Your task to perform on an android device: check data usage Image 0: 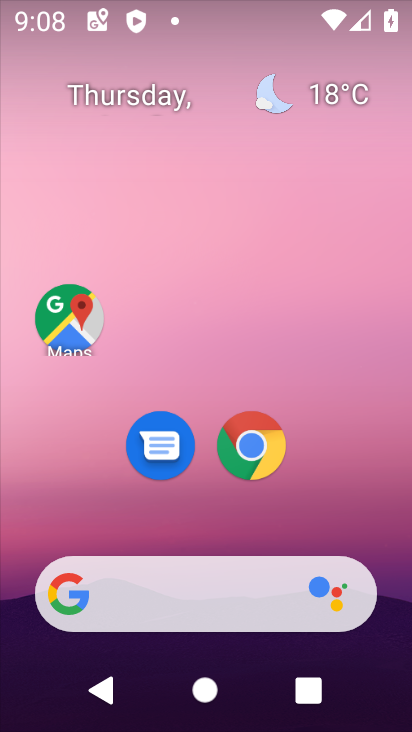
Step 0: drag from (410, 591) to (324, 219)
Your task to perform on an android device: check data usage Image 1: 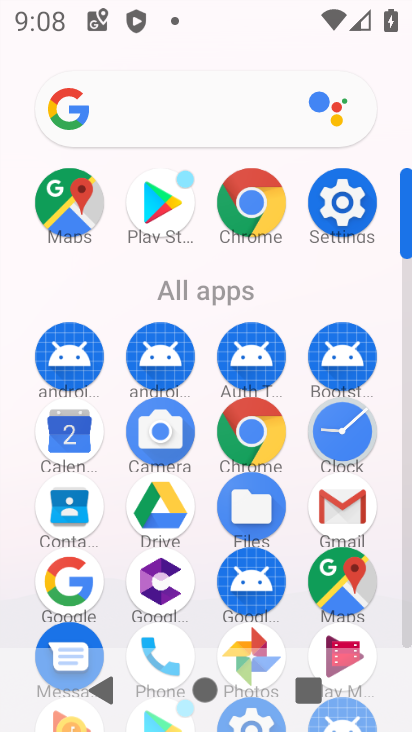
Step 1: click (339, 196)
Your task to perform on an android device: check data usage Image 2: 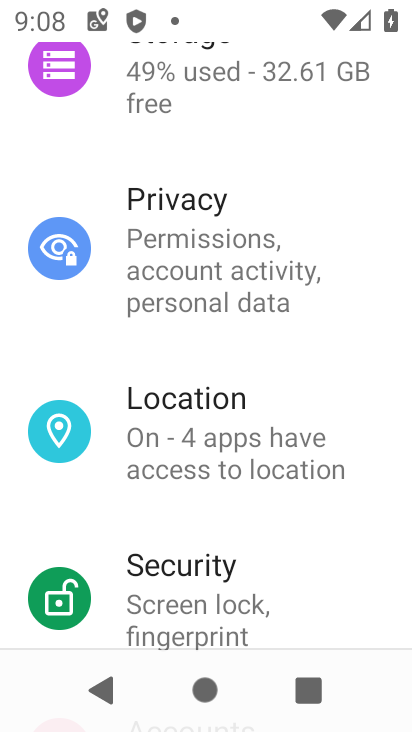
Step 2: drag from (269, 134) to (219, 576)
Your task to perform on an android device: check data usage Image 3: 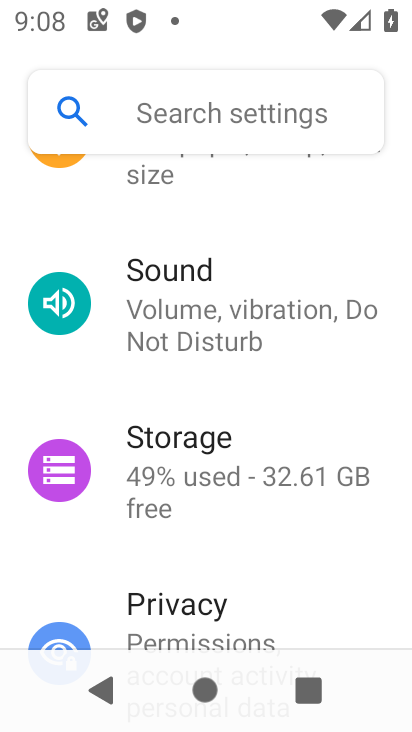
Step 3: drag from (203, 221) to (151, 664)
Your task to perform on an android device: check data usage Image 4: 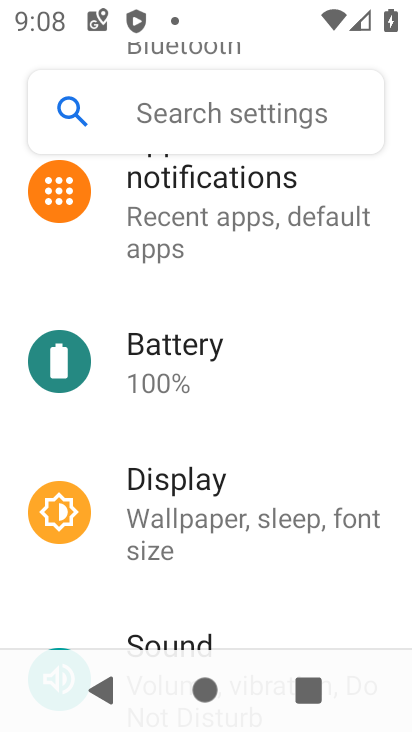
Step 4: drag from (188, 270) to (164, 594)
Your task to perform on an android device: check data usage Image 5: 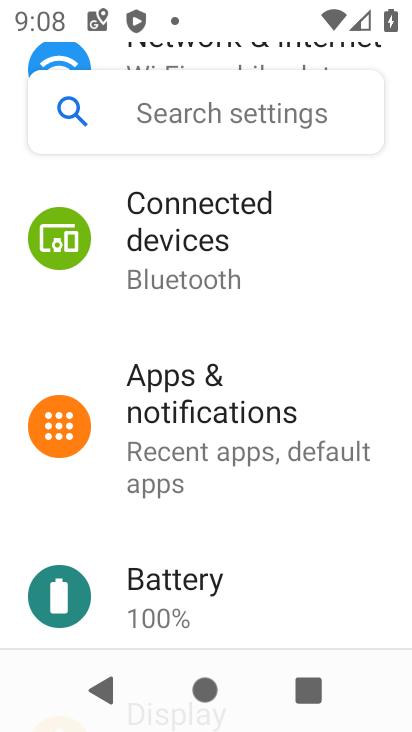
Step 5: drag from (164, 305) to (156, 587)
Your task to perform on an android device: check data usage Image 6: 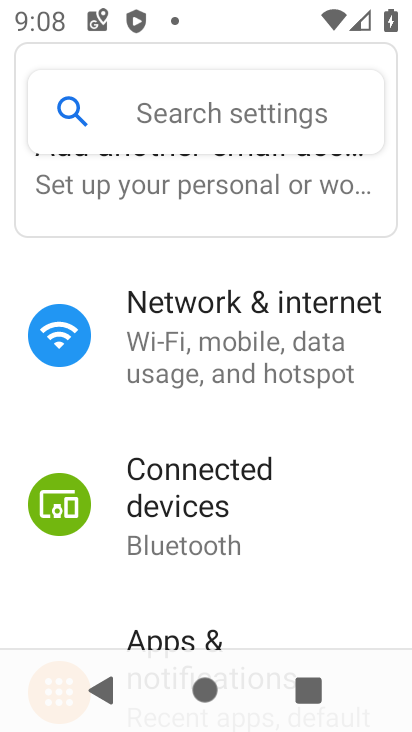
Step 6: click (185, 330)
Your task to perform on an android device: check data usage Image 7: 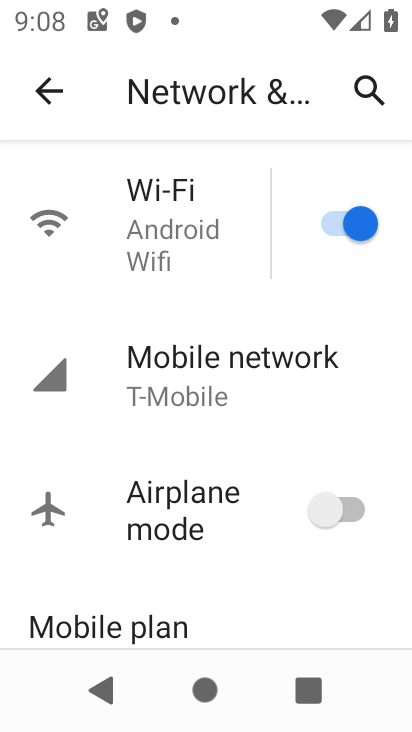
Step 7: click (198, 241)
Your task to perform on an android device: check data usage Image 8: 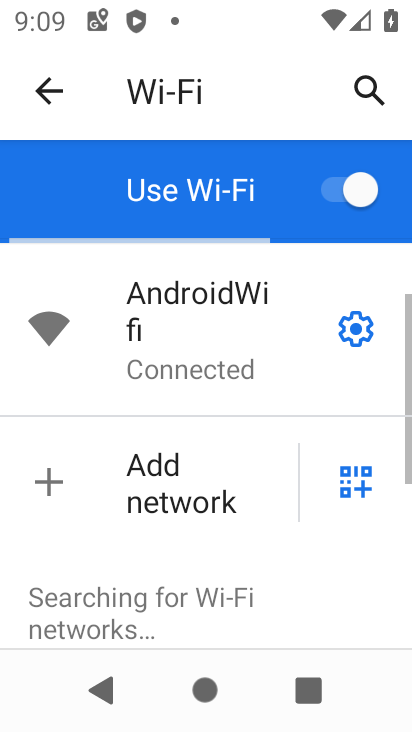
Step 8: drag from (257, 611) to (194, 117)
Your task to perform on an android device: check data usage Image 9: 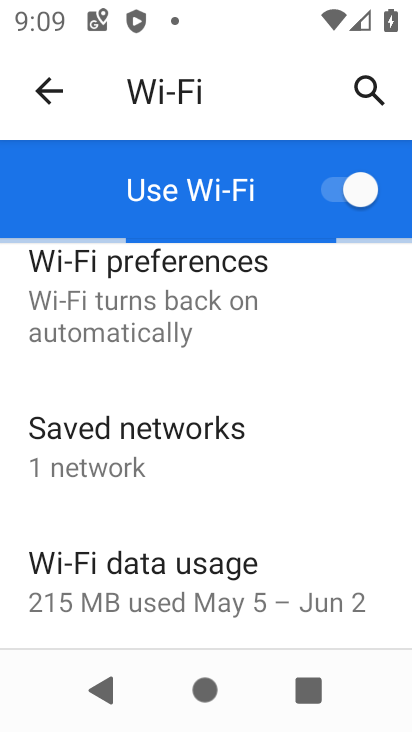
Step 9: click (246, 571)
Your task to perform on an android device: check data usage Image 10: 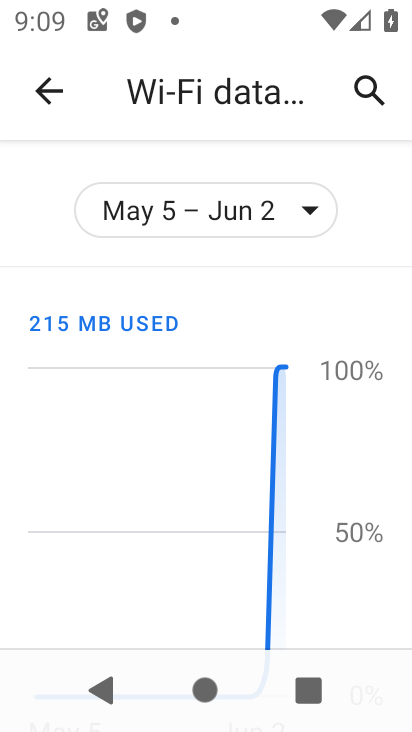
Step 10: task complete